Your task to perform on an android device: turn notification dots on Image 0: 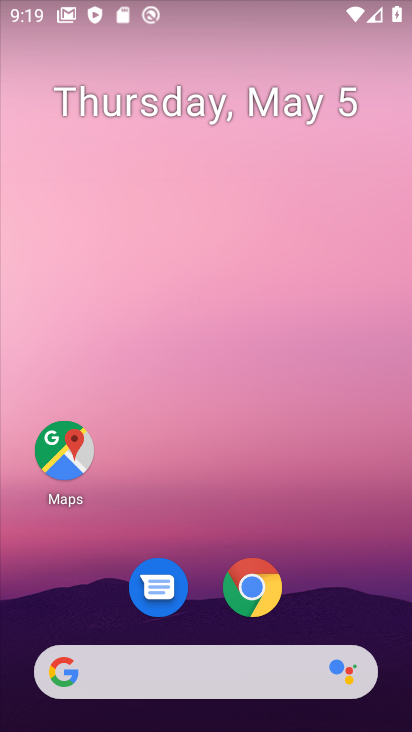
Step 0: drag from (382, 584) to (244, 105)
Your task to perform on an android device: turn notification dots on Image 1: 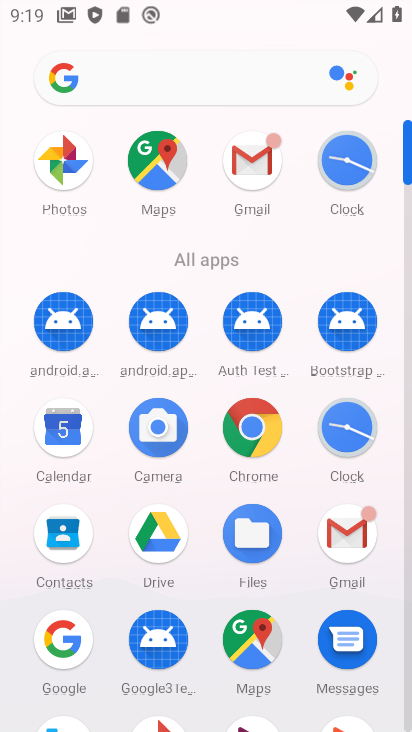
Step 1: click (408, 730)
Your task to perform on an android device: turn notification dots on Image 2: 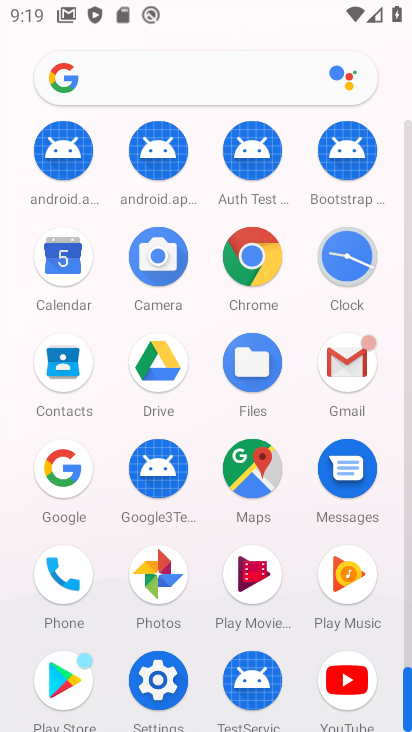
Step 2: click (150, 682)
Your task to perform on an android device: turn notification dots on Image 3: 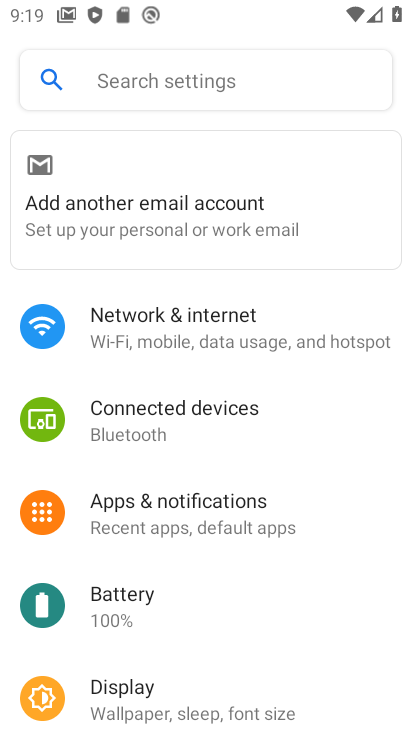
Step 3: drag from (311, 634) to (403, 34)
Your task to perform on an android device: turn notification dots on Image 4: 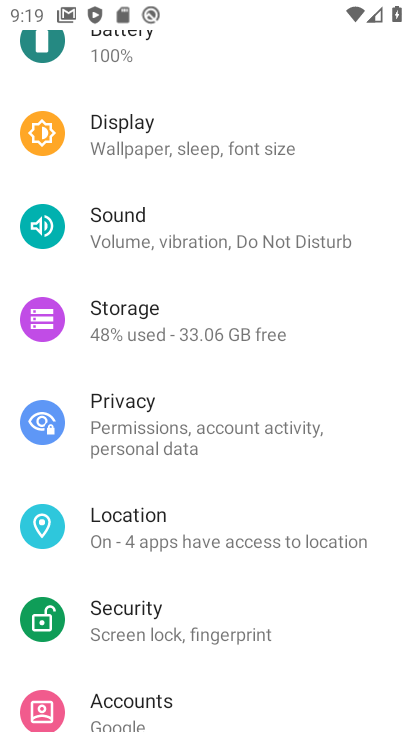
Step 4: drag from (284, 685) to (200, 139)
Your task to perform on an android device: turn notification dots on Image 5: 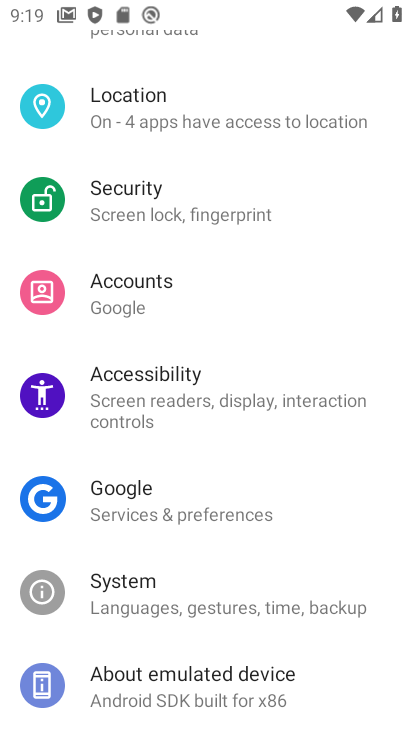
Step 5: drag from (208, 97) to (254, 514)
Your task to perform on an android device: turn notification dots on Image 6: 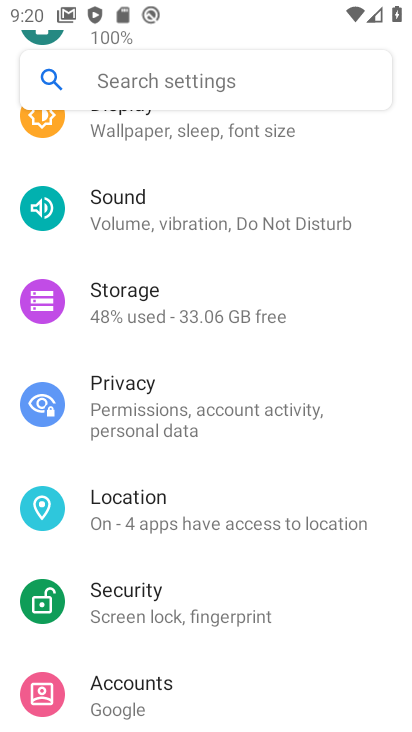
Step 6: drag from (179, 138) to (209, 296)
Your task to perform on an android device: turn notification dots on Image 7: 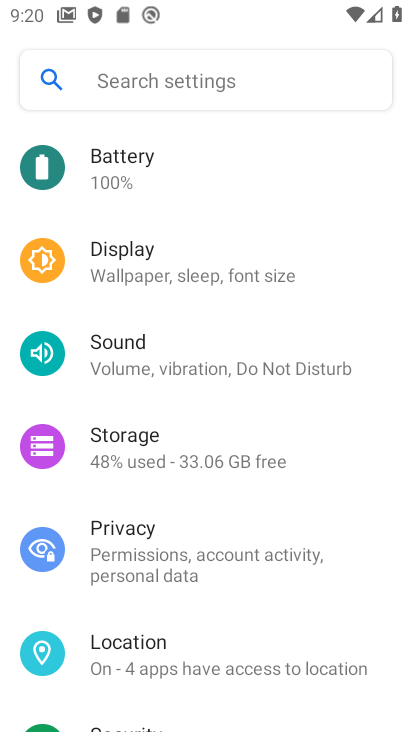
Step 7: drag from (246, 667) to (261, 103)
Your task to perform on an android device: turn notification dots on Image 8: 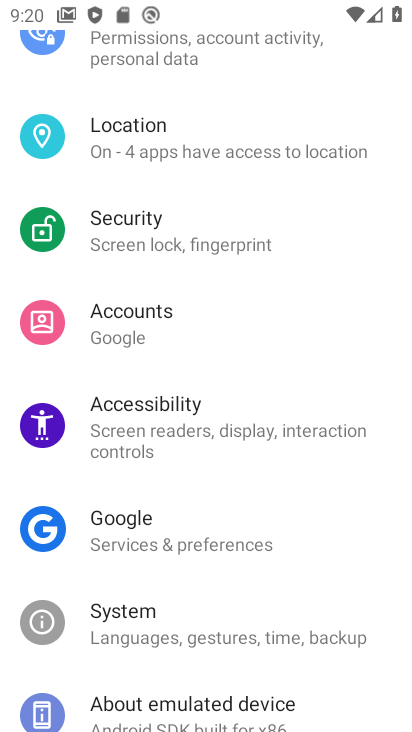
Step 8: drag from (212, 685) to (288, 657)
Your task to perform on an android device: turn notification dots on Image 9: 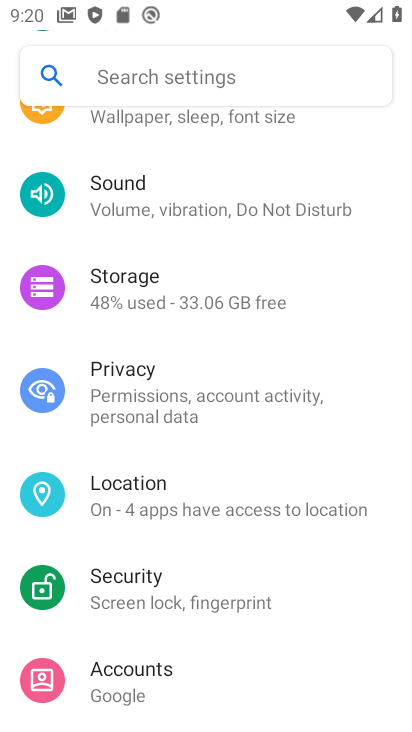
Step 9: drag from (214, 251) to (249, 726)
Your task to perform on an android device: turn notification dots on Image 10: 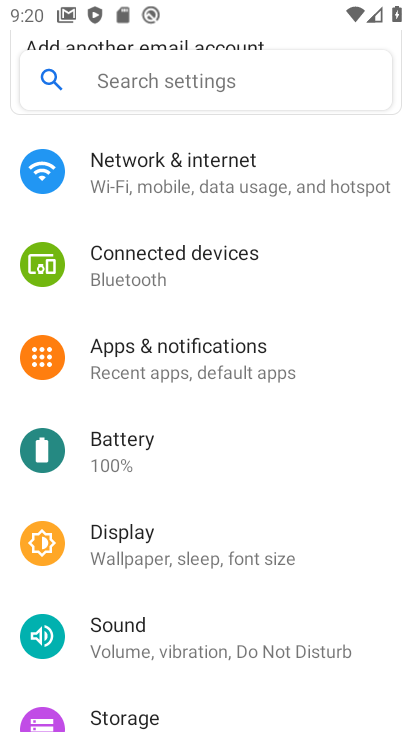
Step 10: drag from (212, 385) to (245, 724)
Your task to perform on an android device: turn notification dots on Image 11: 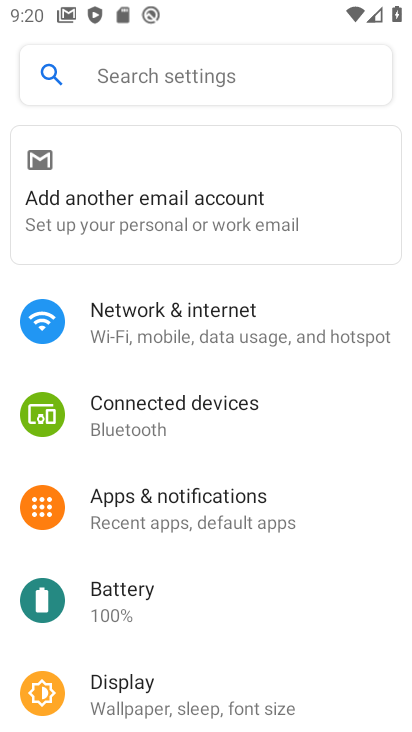
Step 11: click (202, 517)
Your task to perform on an android device: turn notification dots on Image 12: 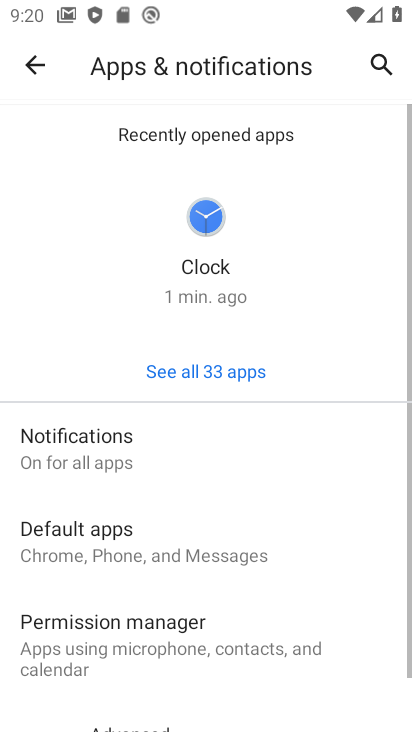
Step 12: click (78, 465)
Your task to perform on an android device: turn notification dots on Image 13: 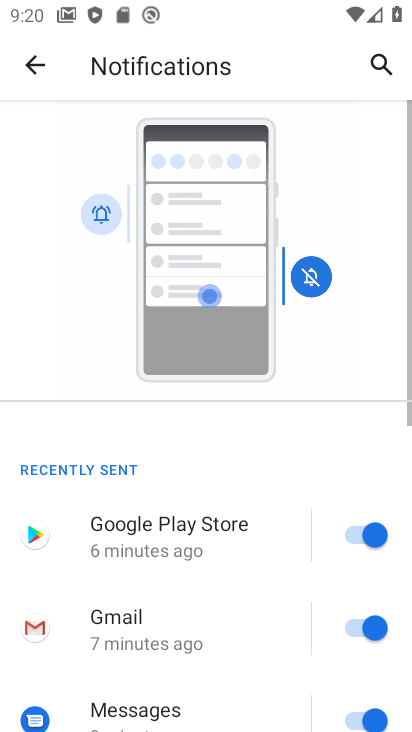
Step 13: drag from (242, 625) to (256, 13)
Your task to perform on an android device: turn notification dots on Image 14: 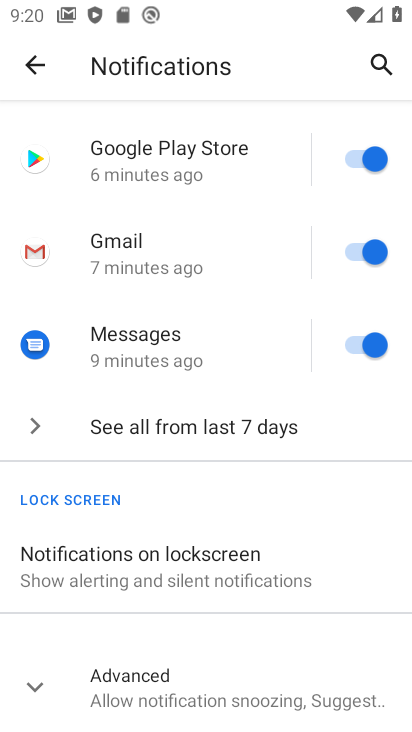
Step 14: click (254, 672)
Your task to perform on an android device: turn notification dots on Image 15: 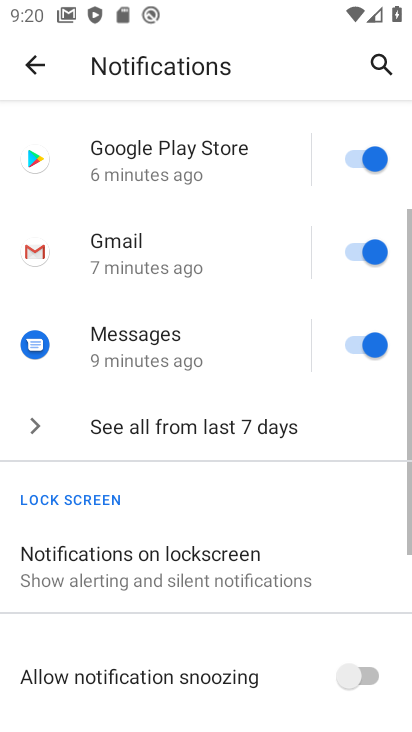
Step 15: task complete